Your task to perform on an android device: turn pop-ups on in chrome Image 0: 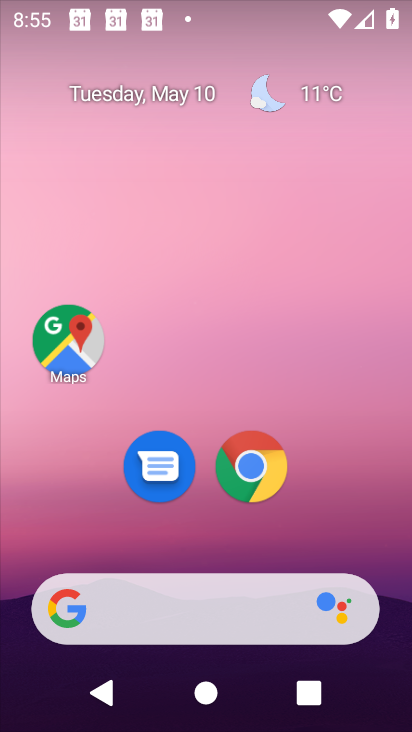
Step 0: click (259, 462)
Your task to perform on an android device: turn pop-ups on in chrome Image 1: 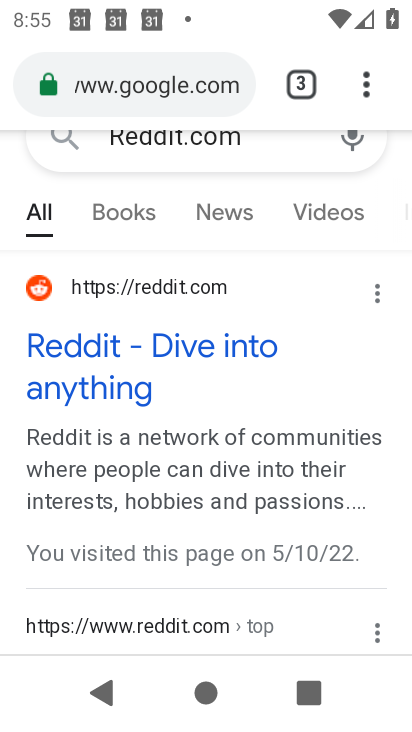
Step 1: click (368, 85)
Your task to perform on an android device: turn pop-ups on in chrome Image 2: 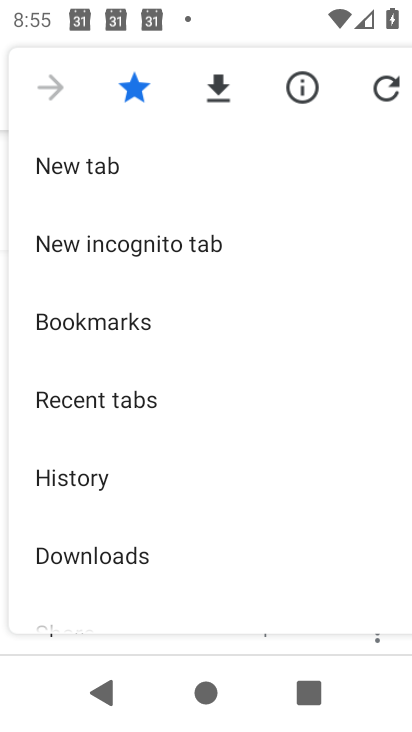
Step 2: drag from (130, 503) to (209, 107)
Your task to perform on an android device: turn pop-ups on in chrome Image 3: 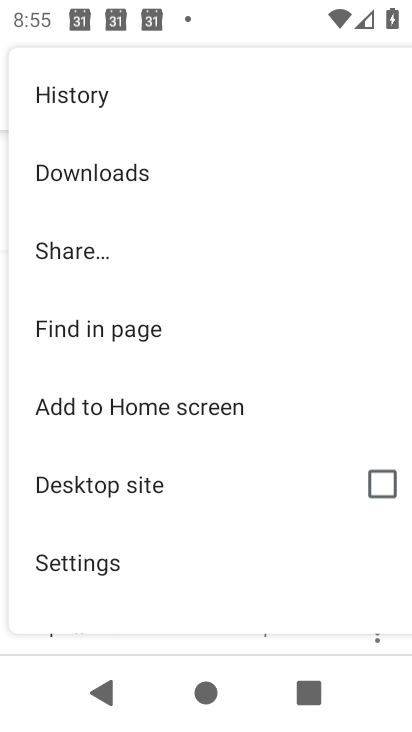
Step 3: click (111, 561)
Your task to perform on an android device: turn pop-ups on in chrome Image 4: 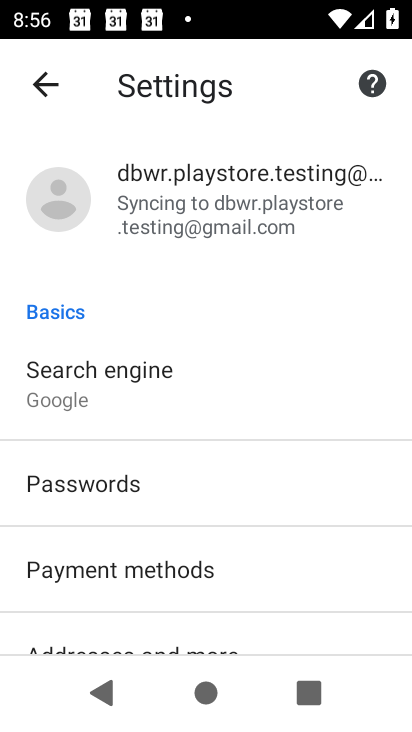
Step 4: drag from (177, 558) to (227, 134)
Your task to perform on an android device: turn pop-ups on in chrome Image 5: 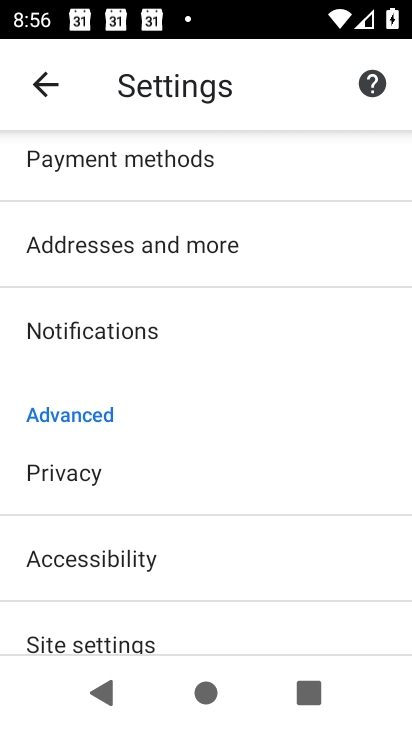
Step 5: drag from (68, 593) to (132, 217)
Your task to perform on an android device: turn pop-ups on in chrome Image 6: 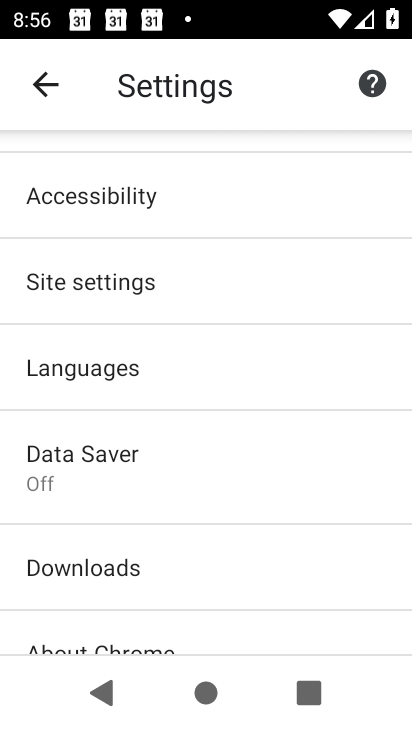
Step 6: click (103, 287)
Your task to perform on an android device: turn pop-ups on in chrome Image 7: 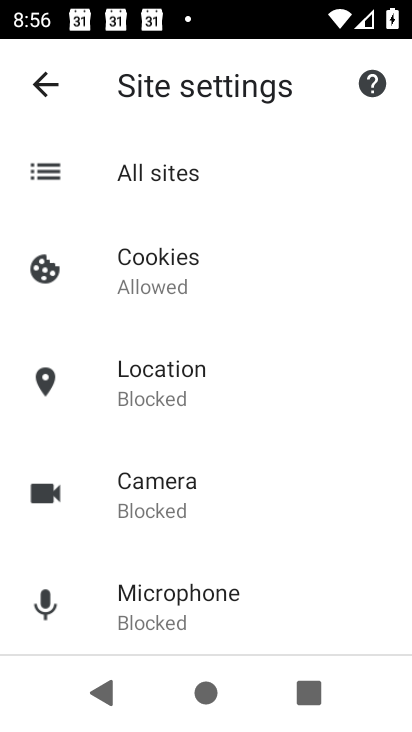
Step 7: drag from (174, 524) to (223, 198)
Your task to perform on an android device: turn pop-ups on in chrome Image 8: 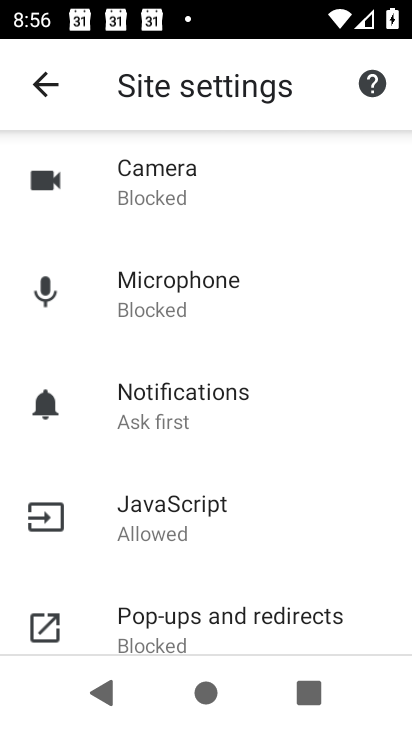
Step 8: click (187, 607)
Your task to perform on an android device: turn pop-ups on in chrome Image 9: 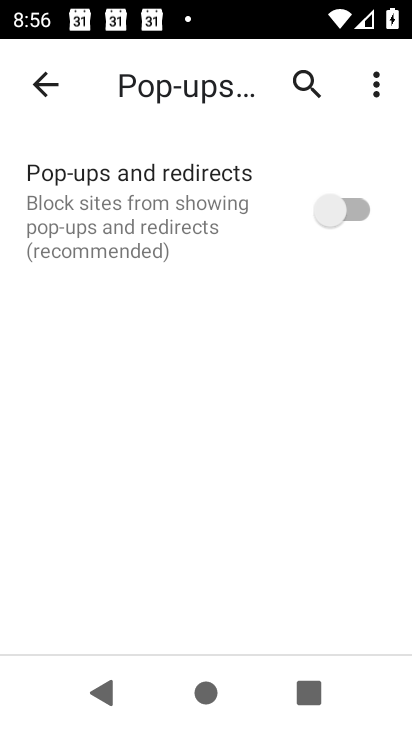
Step 9: click (345, 211)
Your task to perform on an android device: turn pop-ups on in chrome Image 10: 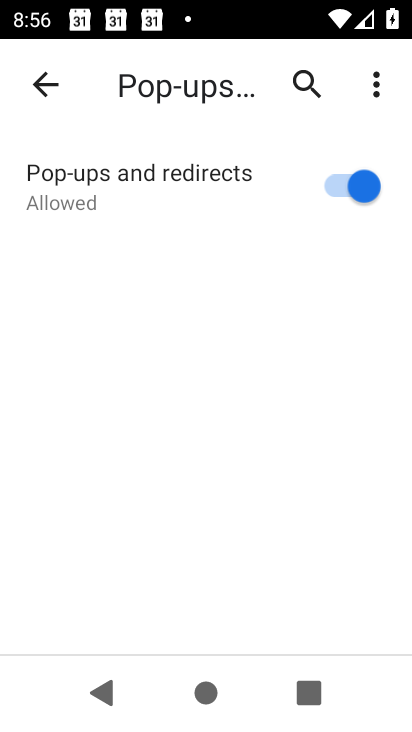
Step 10: task complete